Your task to perform on an android device: turn off location Image 0: 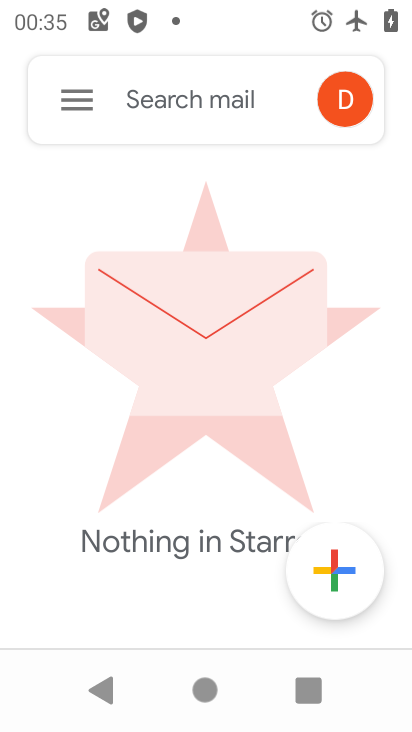
Step 0: press home button
Your task to perform on an android device: turn off location Image 1: 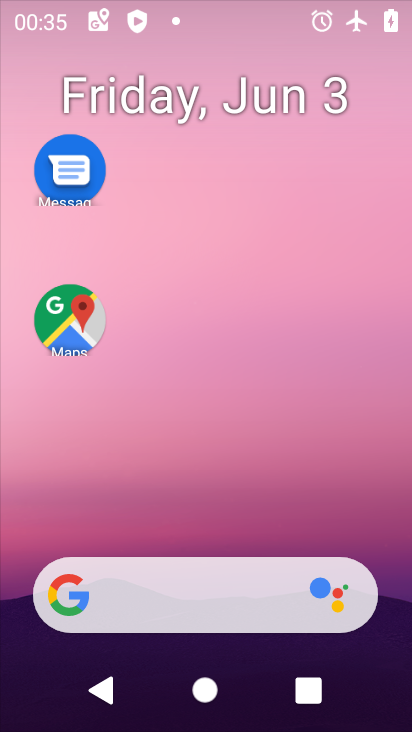
Step 1: drag from (337, 557) to (271, 120)
Your task to perform on an android device: turn off location Image 2: 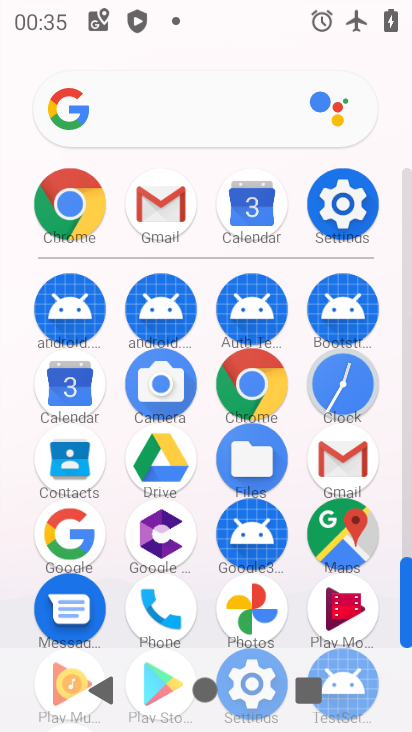
Step 2: click (328, 238)
Your task to perform on an android device: turn off location Image 3: 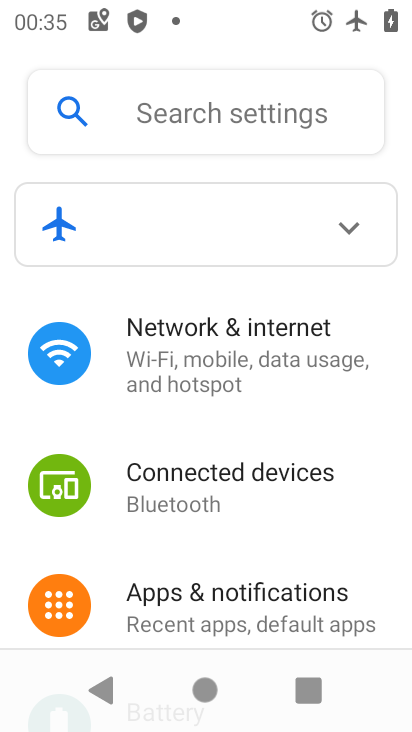
Step 3: drag from (164, 609) to (194, 139)
Your task to perform on an android device: turn off location Image 4: 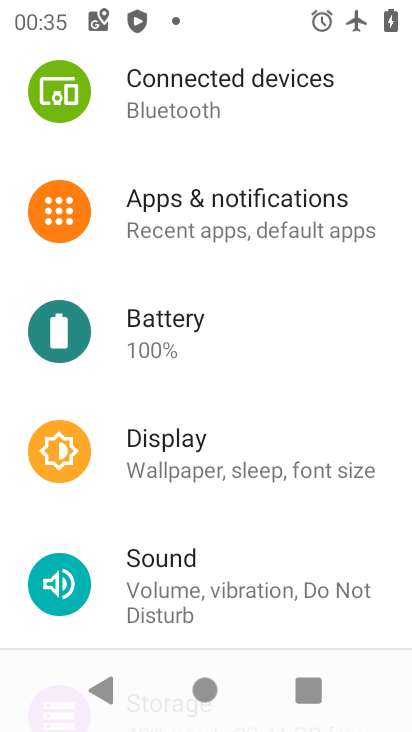
Step 4: drag from (182, 601) to (244, 183)
Your task to perform on an android device: turn off location Image 5: 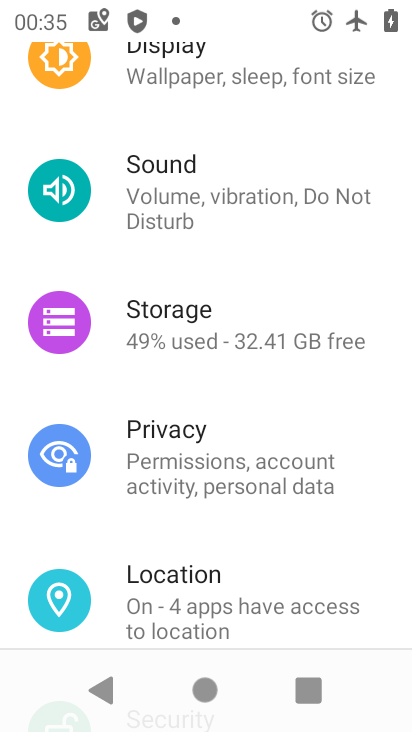
Step 5: click (223, 595)
Your task to perform on an android device: turn off location Image 6: 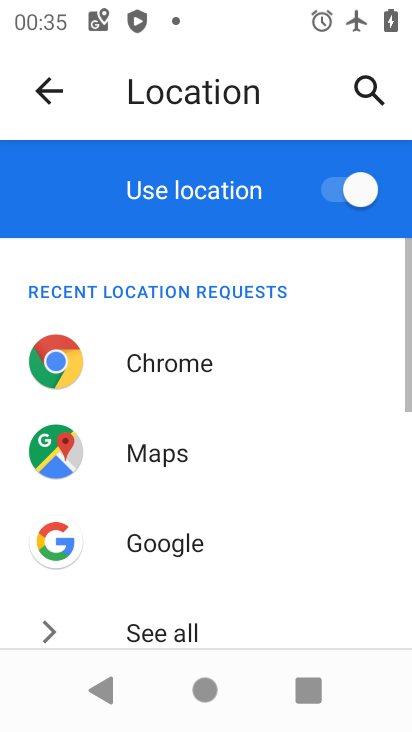
Step 6: drag from (220, 581) to (233, 210)
Your task to perform on an android device: turn off location Image 7: 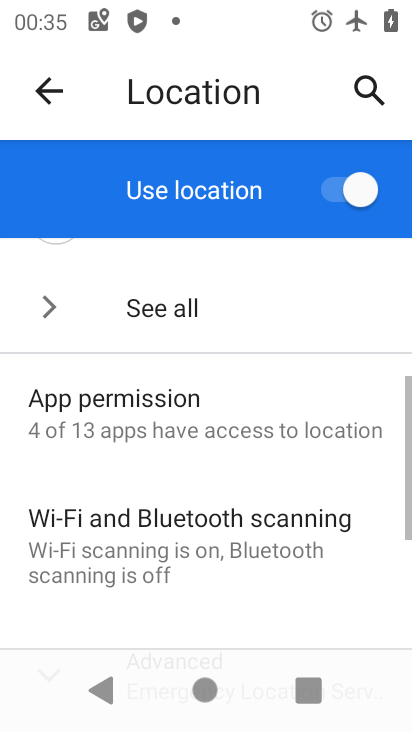
Step 7: drag from (213, 513) to (236, 392)
Your task to perform on an android device: turn off location Image 8: 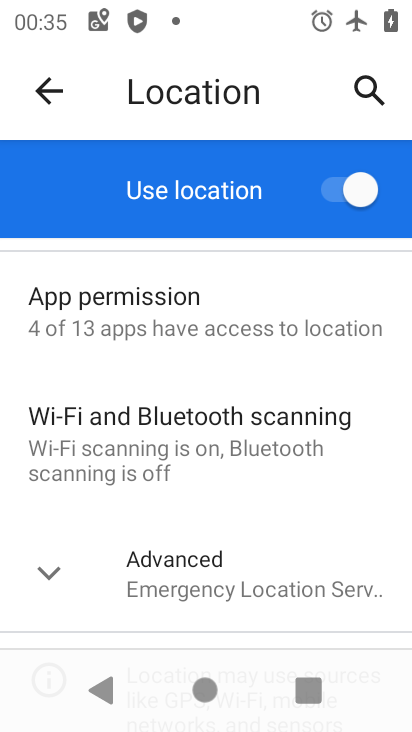
Step 8: click (250, 229)
Your task to perform on an android device: turn off location Image 9: 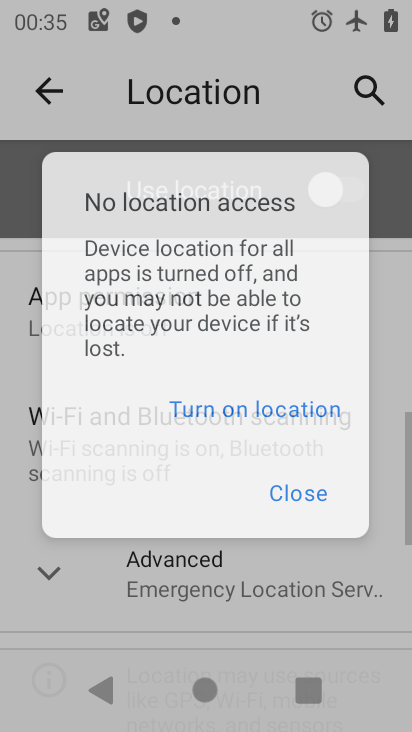
Step 9: task complete